Your task to perform on an android device: turn on translation in the chrome app Image 0: 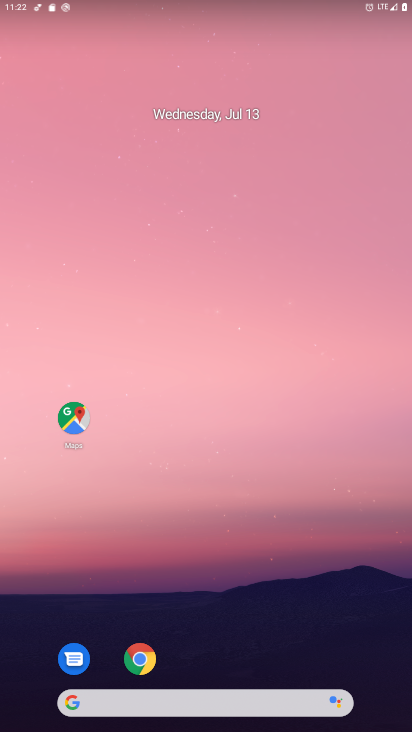
Step 0: click (144, 653)
Your task to perform on an android device: turn on translation in the chrome app Image 1: 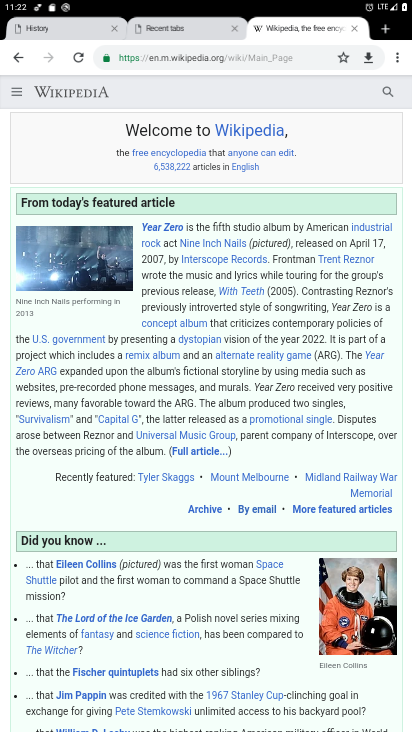
Step 1: click (394, 55)
Your task to perform on an android device: turn on translation in the chrome app Image 2: 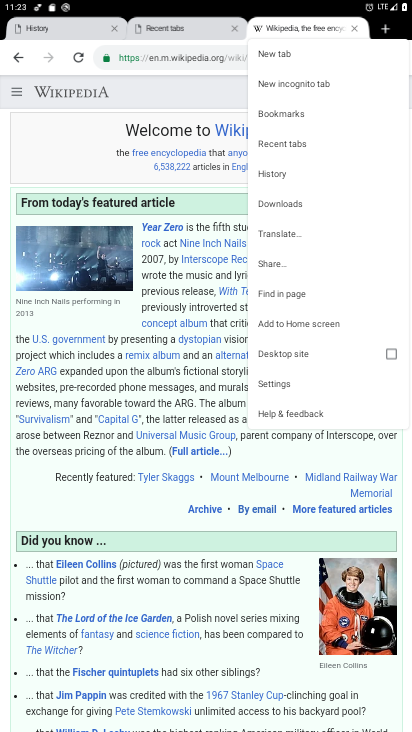
Step 2: click (295, 381)
Your task to perform on an android device: turn on translation in the chrome app Image 3: 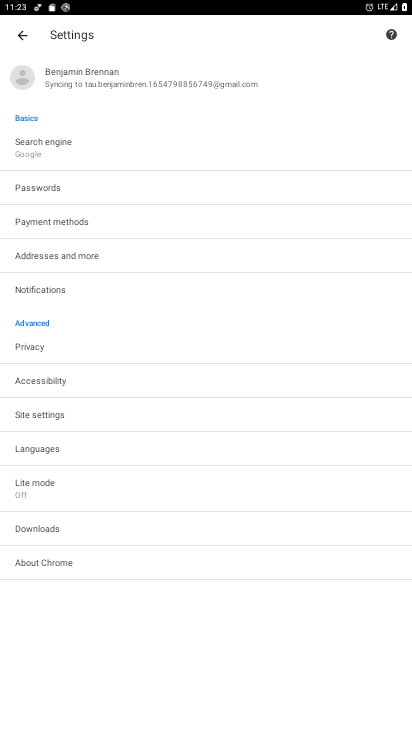
Step 3: click (67, 448)
Your task to perform on an android device: turn on translation in the chrome app Image 4: 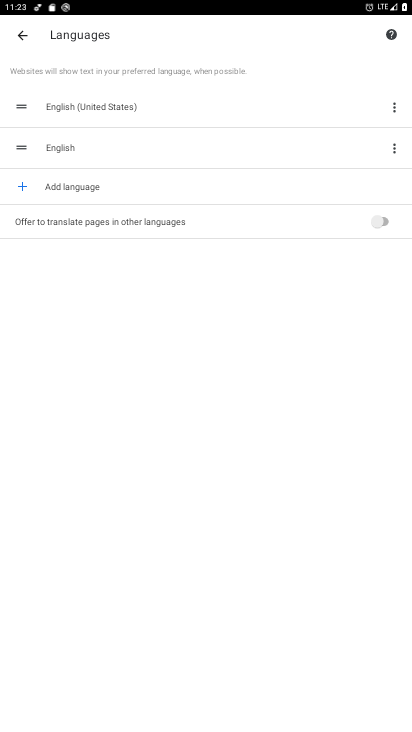
Step 4: click (384, 218)
Your task to perform on an android device: turn on translation in the chrome app Image 5: 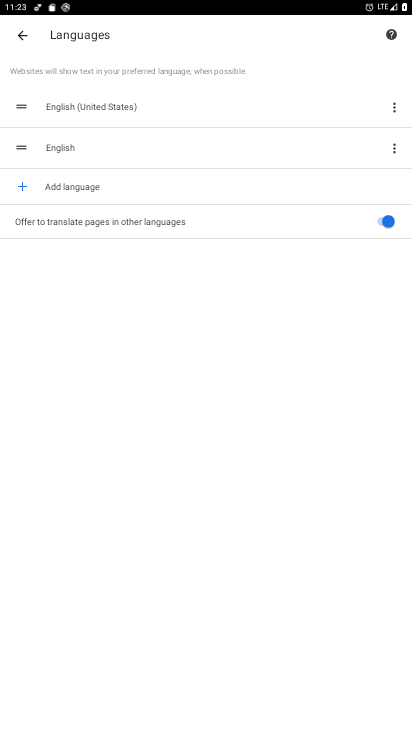
Step 5: task complete